Your task to perform on an android device: Open Maps and search for coffee Image 0: 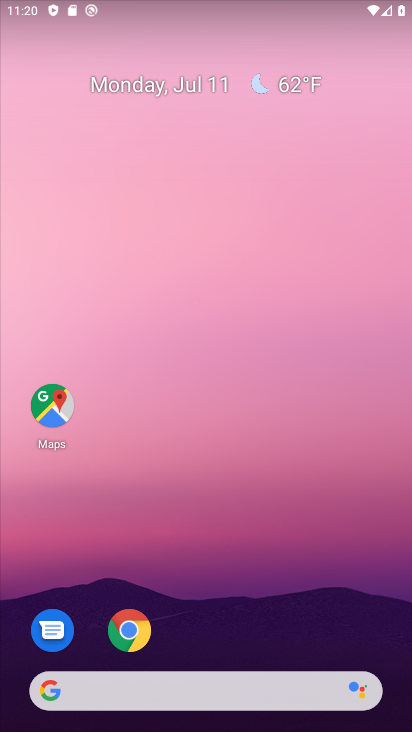
Step 0: drag from (220, 686) to (257, 74)
Your task to perform on an android device: Open Maps and search for coffee Image 1: 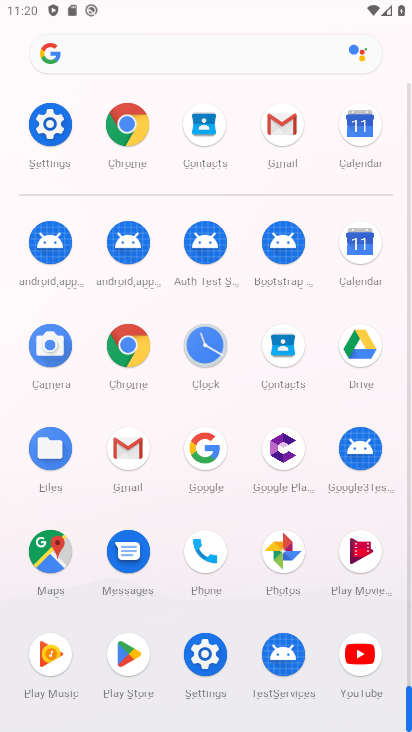
Step 1: click (40, 549)
Your task to perform on an android device: Open Maps and search for coffee Image 2: 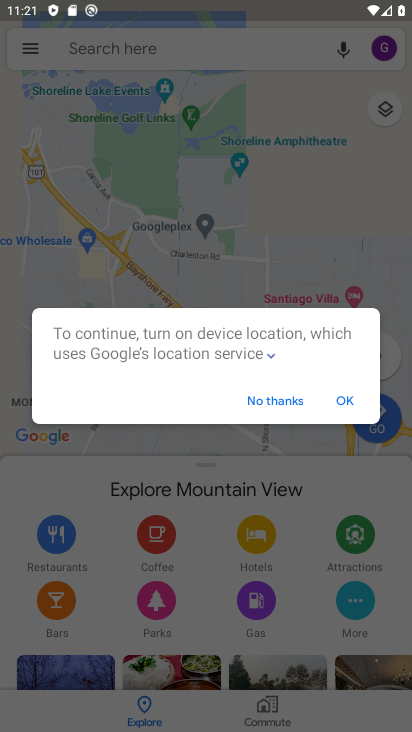
Step 2: click (332, 394)
Your task to perform on an android device: Open Maps and search for coffee Image 3: 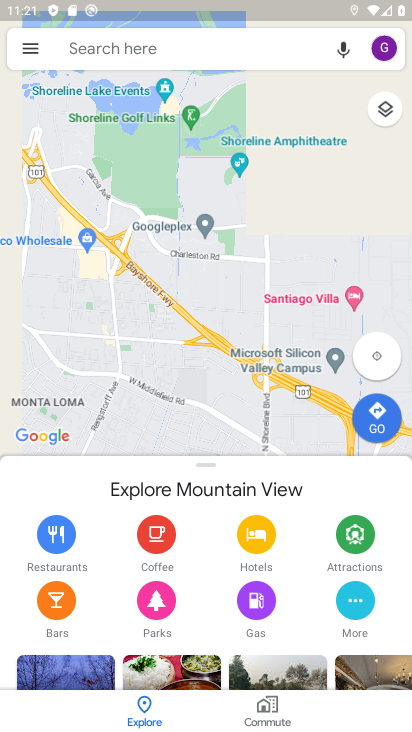
Step 3: click (232, 66)
Your task to perform on an android device: Open Maps and search for coffee Image 4: 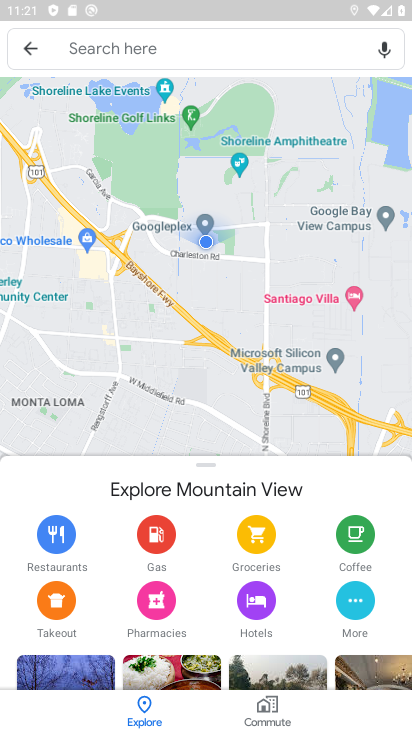
Step 4: click (153, 47)
Your task to perform on an android device: Open Maps and search for coffee Image 5: 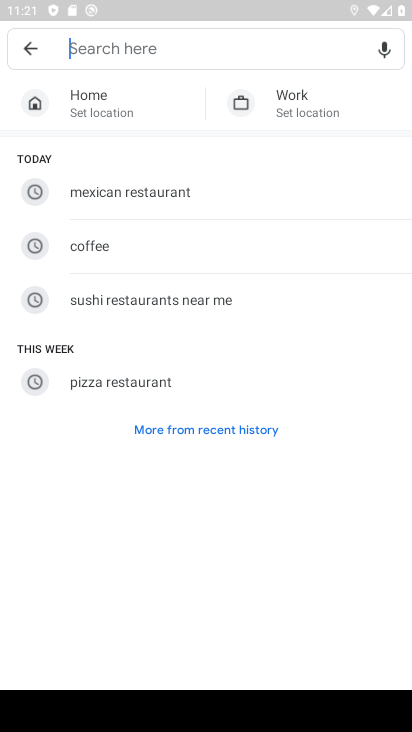
Step 5: click (84, 247)
Your task to perform on an android device: Open Maps and search for coffee Image 6: 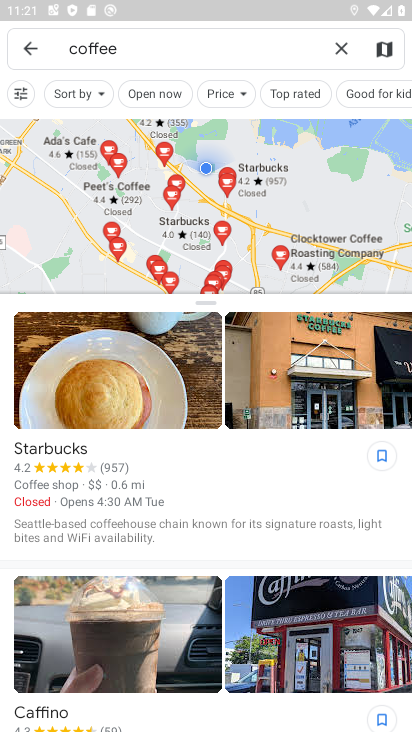
Step 6: task complete